Your task to perform on an android device: Go to Google Image 0: 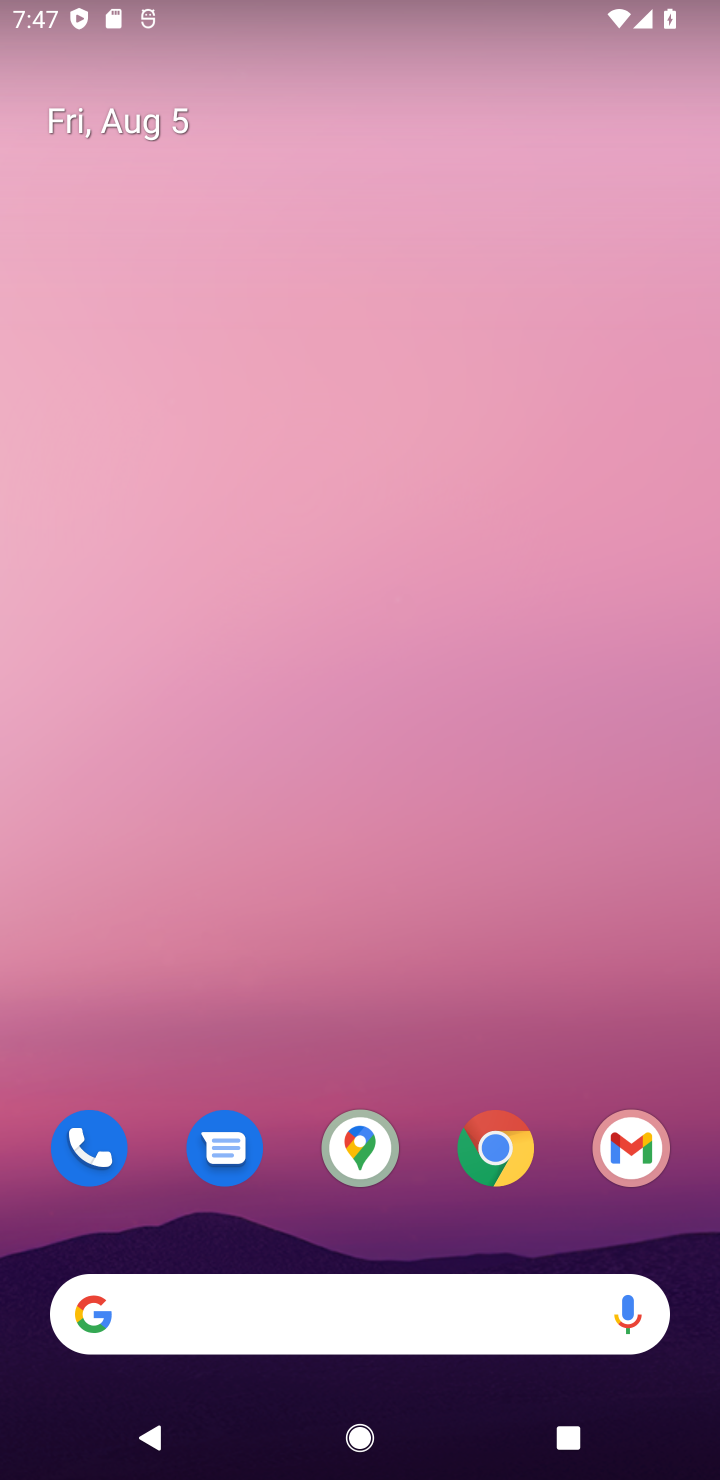
Step 0: click (512, 1170)
Your task to perform on an android device: Go to Google Image 1: 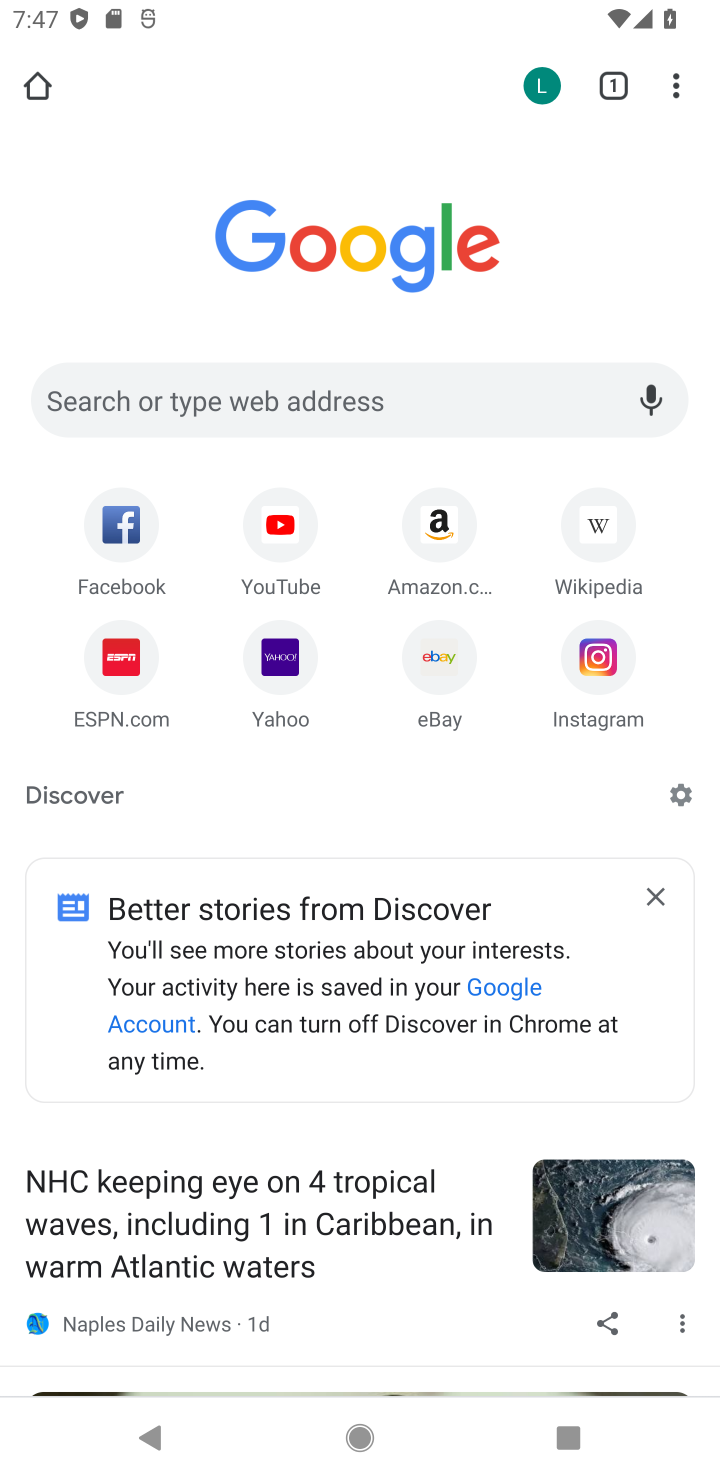
Step 1: click (435, 402)
Your task to perform on an android device: Go to Google Image 2: 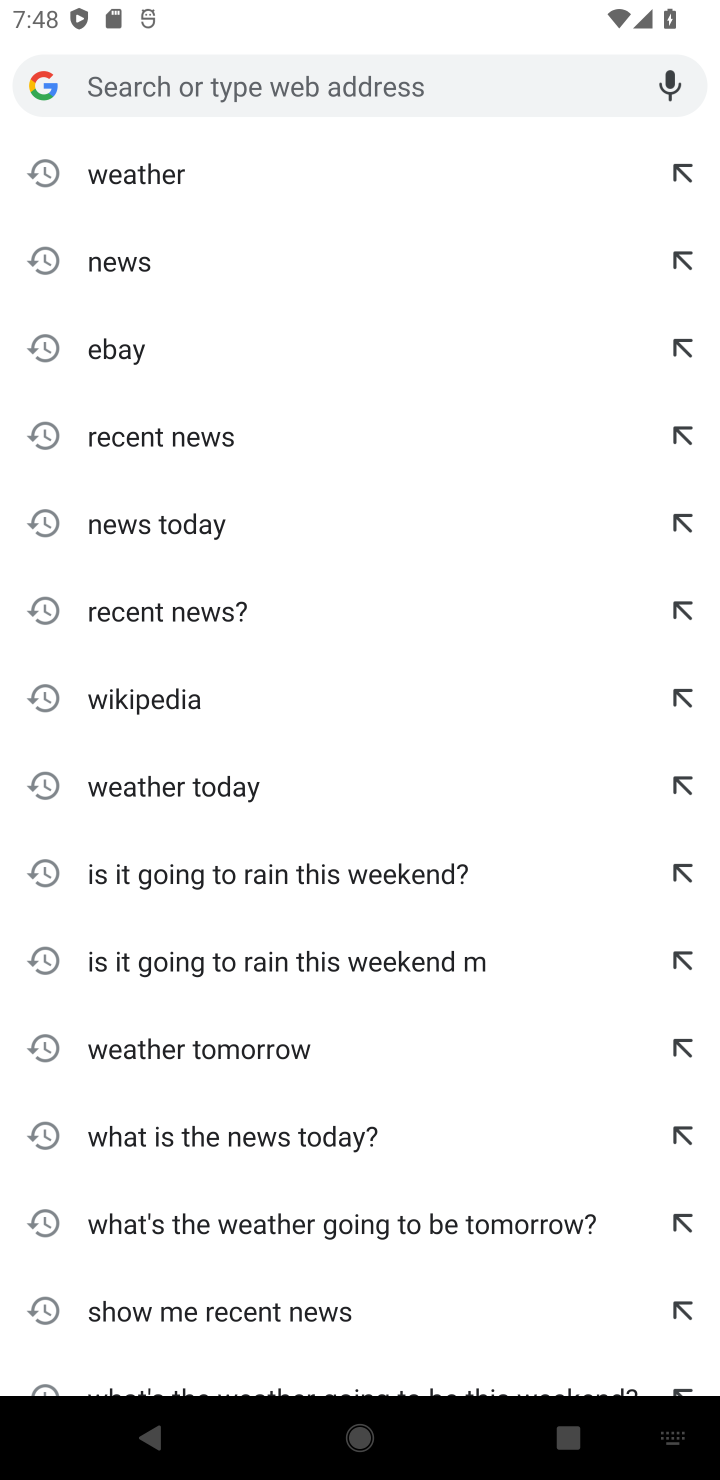
Step 2: type "google"
Your task to perform on an android device: Go to Google Image 3: 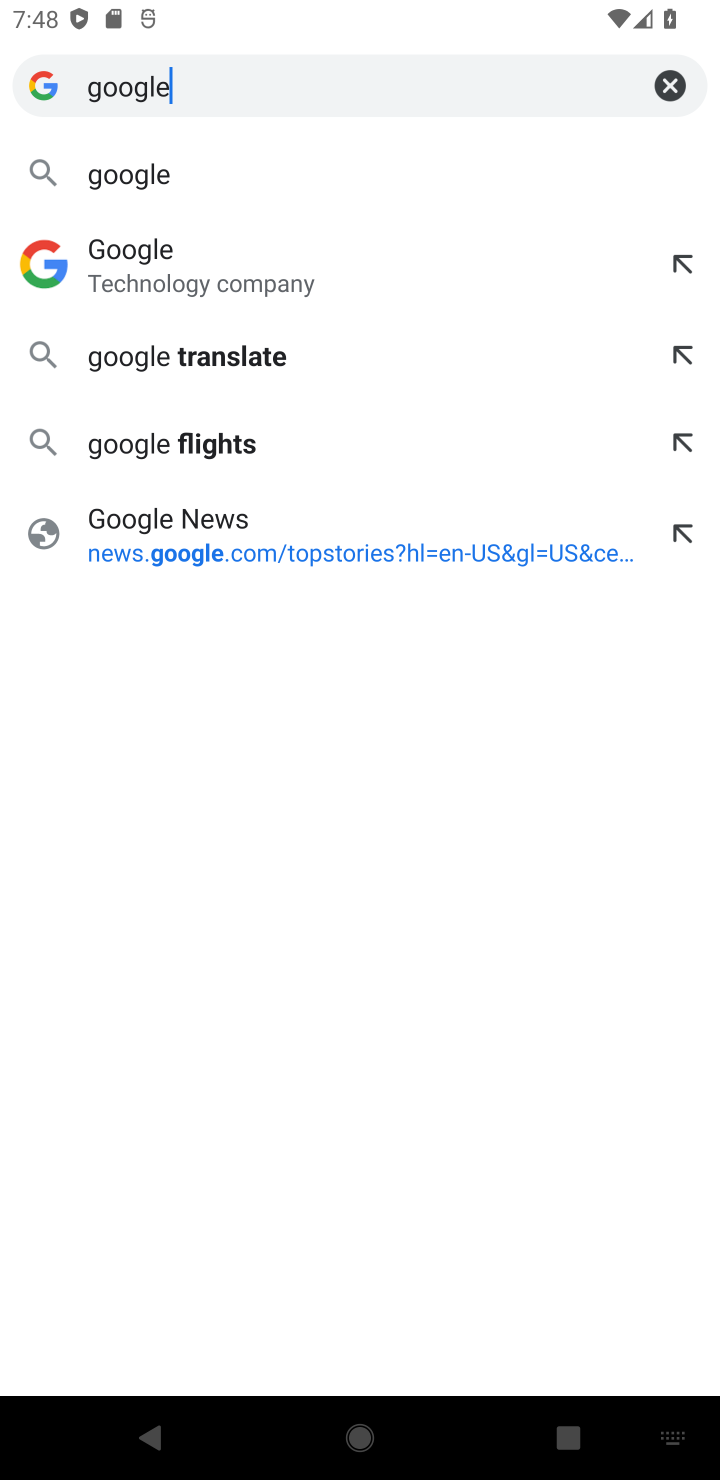
Step 3: click (181, 190)
Your task to perform on an android device: Go to Google Image 4: 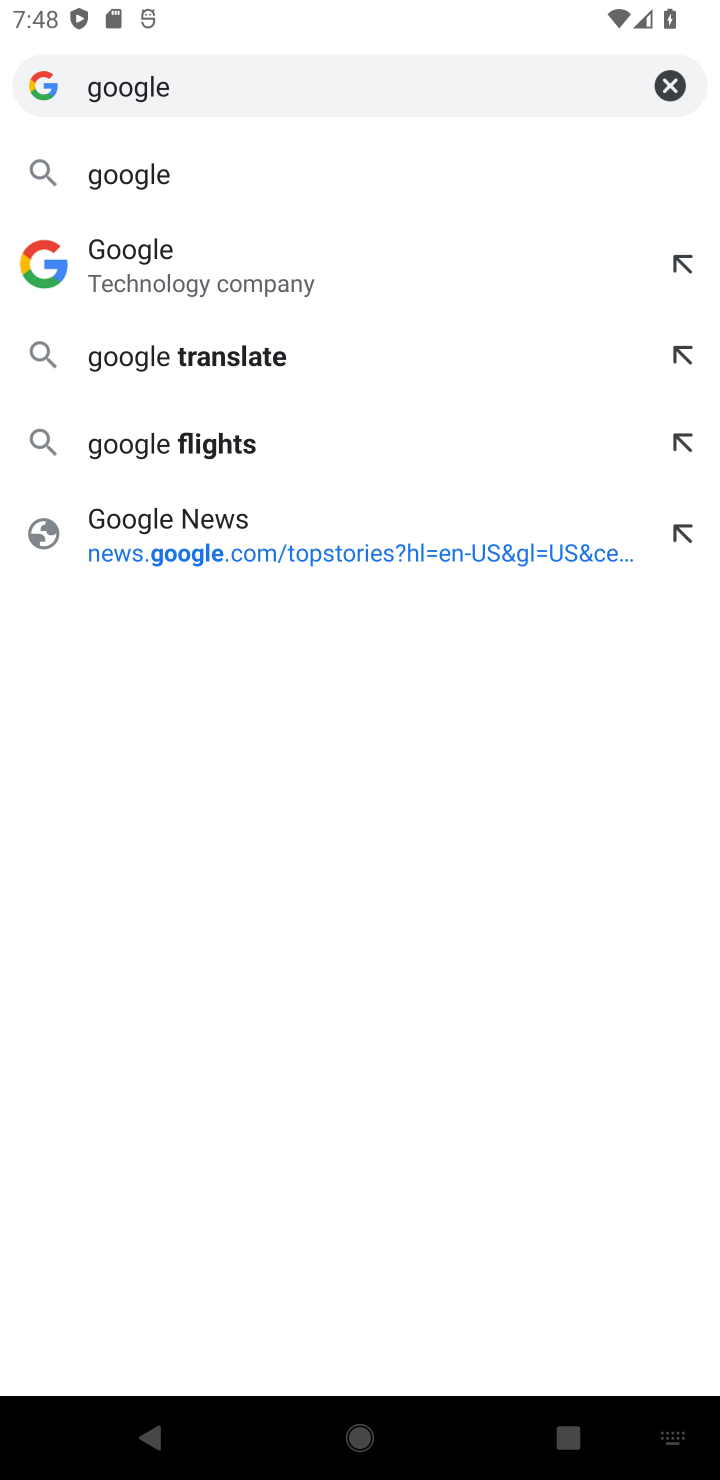
Step 4: click (181, 190)
Your task to perform on an android device: Go to Google Image 5: 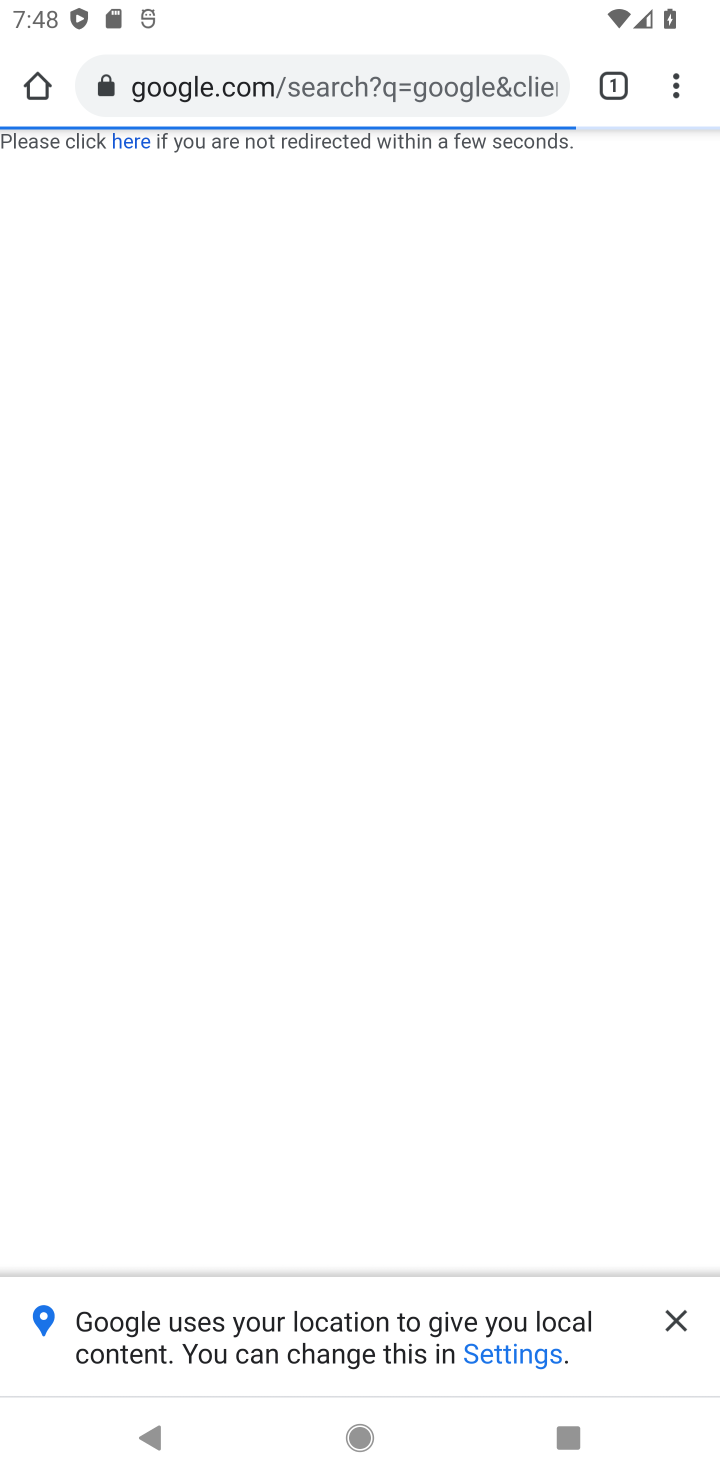
Step 5: task complete